Your task to perform on an android device: allow notifications from all sites in the chrome app Image 0: 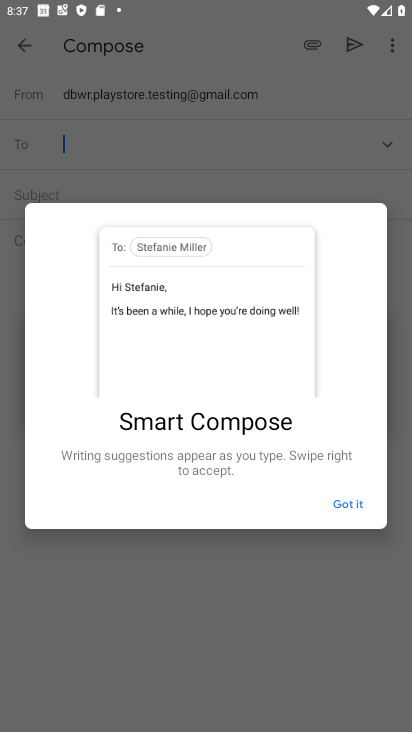
Step 0: press home button
Your task to perform on an android device: allow notifications from all sites in the chrome app Image 1: 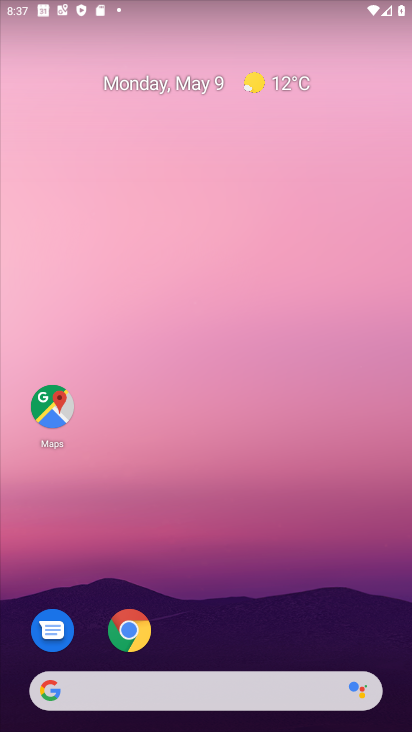
Step 1: click (125, 624)
Your task to perform on an android device: allow notifications from all sites in the chrome app Image 2: 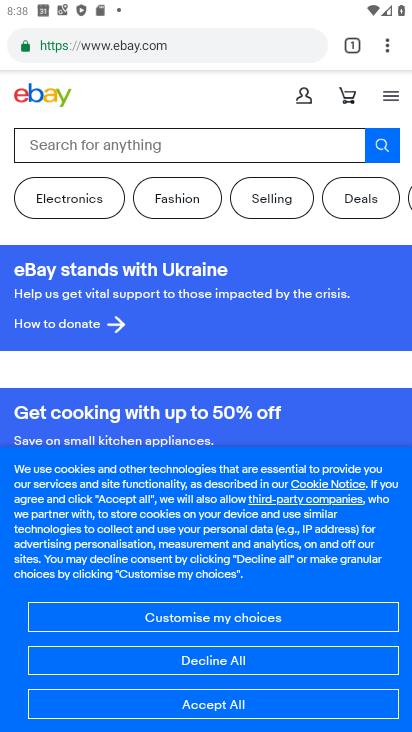
Step 2: click (383, 41)
Your task to perform on an android device: allow notifications from all sites in the chrome app Image 3: 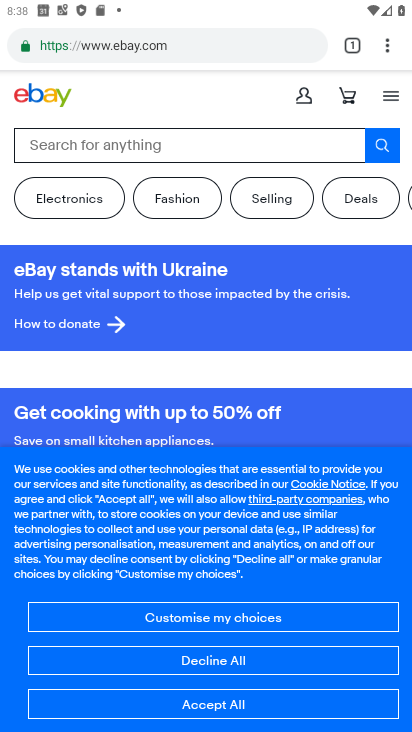
Step 3: click (390, 43)
Your task to perform on an android device: allow notifications from all sites in the chrome app Image 4: 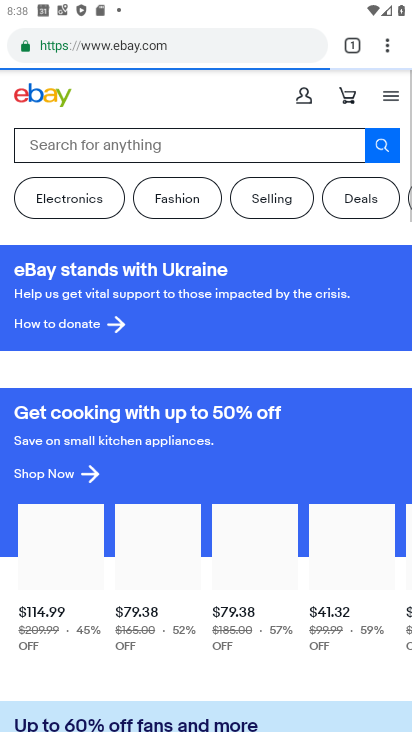
Step 4: click (390, 43)
Your task to perform on an android device: allow notifications from all sites in the chrome app Image 5: 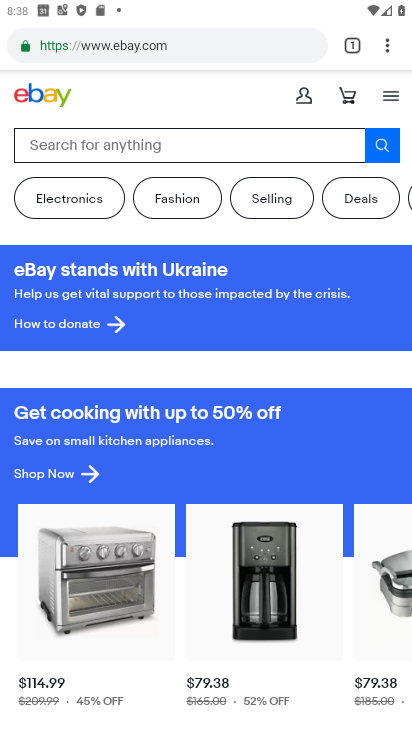
Step 5: click (390, 43)
Your task to perform on an android device: allow notifications from all sites in the chrome app Image 6: 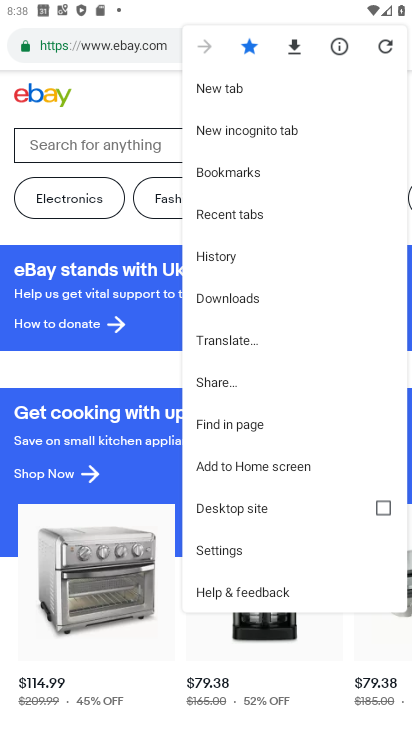
Step 6: drag from (290, 575) to (261, 181)
Your task to perform on an android device: allow notifications from all sites in the chrome app Image 7: 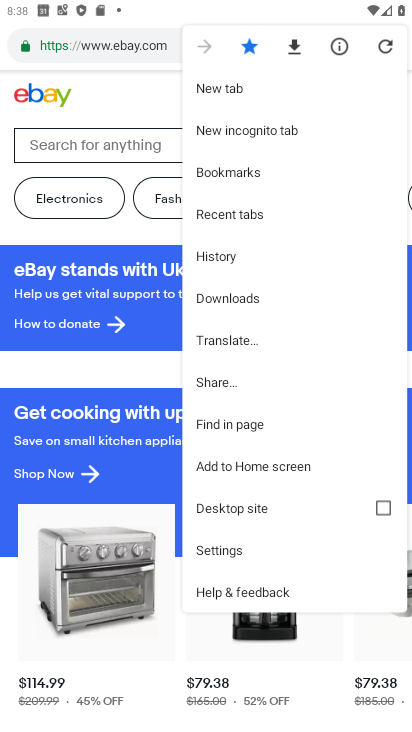
Step 7: click (215, 552)
Your task to perform on an android device: allow notifications from all sites in the chrome app Image 8: 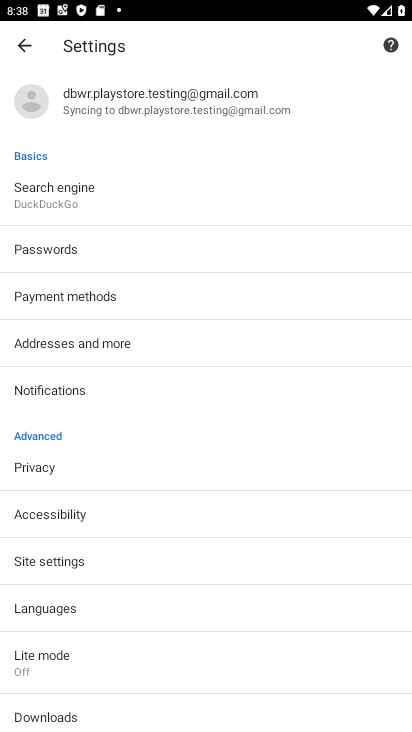
Step 8: click (31, 570)
Your task to perform on an android device: allow notifications from all sites in the chrome app Image 9: 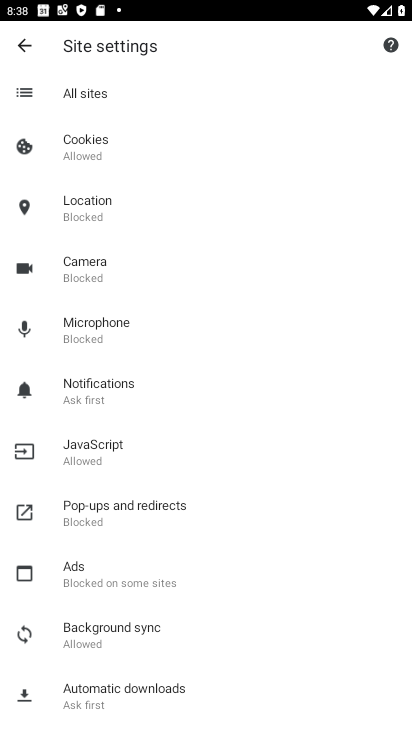
Step 9: click (108, 382)
Your task to perform on an android device: allow notifications from all sites in the chrome app Image 10: 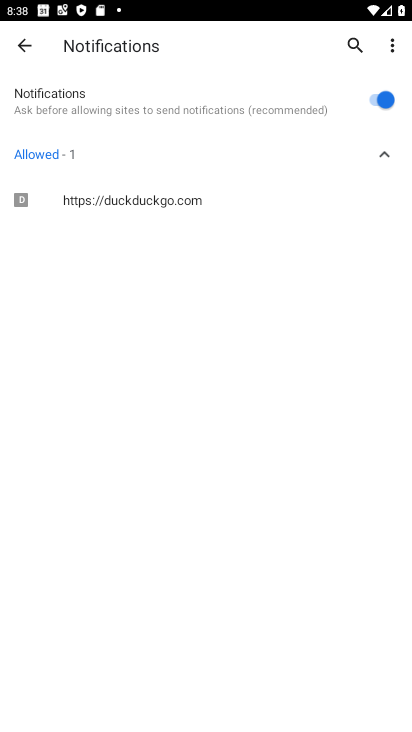
Step 10: task complete